Your task to perform on an android device: read, delete, or share a saved page in the chrome app Image 0: 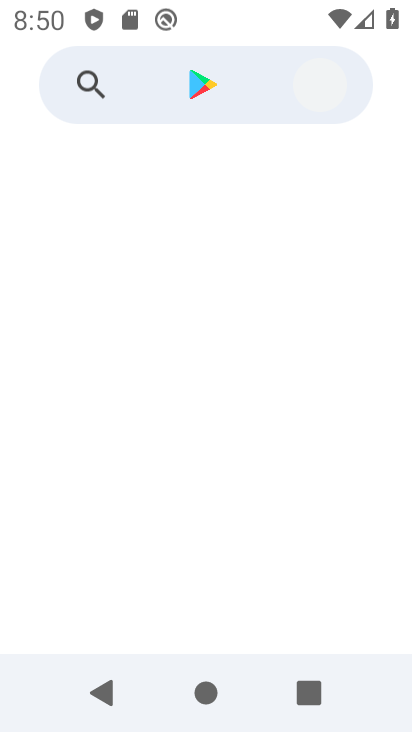
Step 0: press home button
Your task to perform on an android device: read, delete, or share a saved page in the chrome app Image 1: 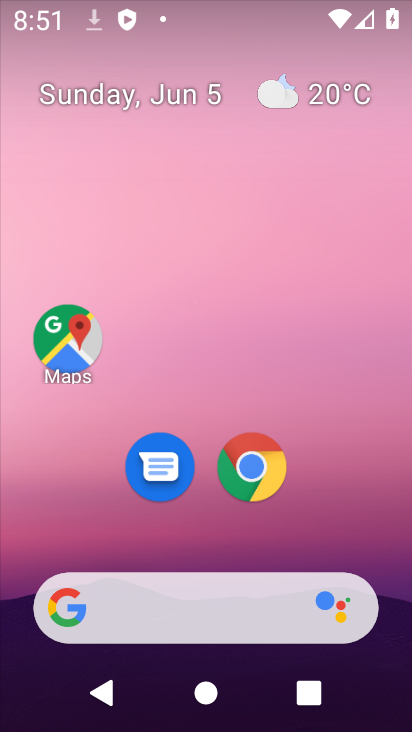
Step 1: click (256, 446)
Your task to perform on an android device: read, delete, or share a saved page in the chrome app Image 2: 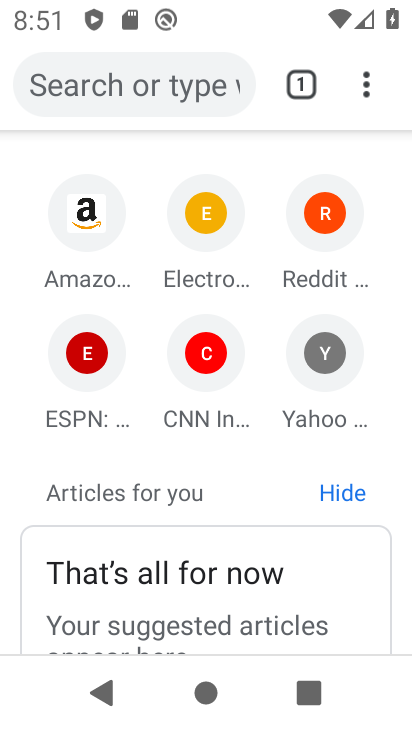
Step 2: click (361, 73)
Your task to perform on an android device: read, delete, or share a saved page in the chrome app Image 3: 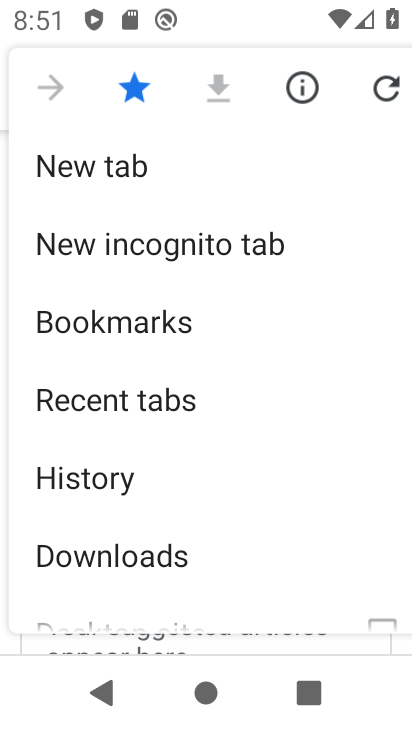
Step 3: click (107, 553)
Your task to perform on an android device: read, delete, or share a saved page in the chrome app Image 4: 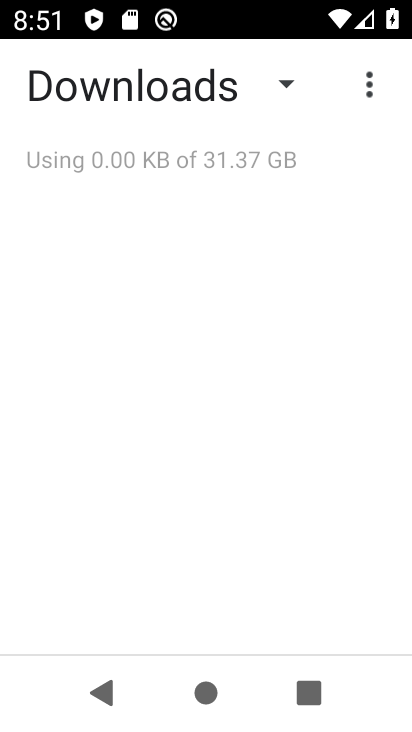
Step 4: click (122, 97)
Your task to perform on an android device: read, delete, or share a saved page in the chrome app Image 5: 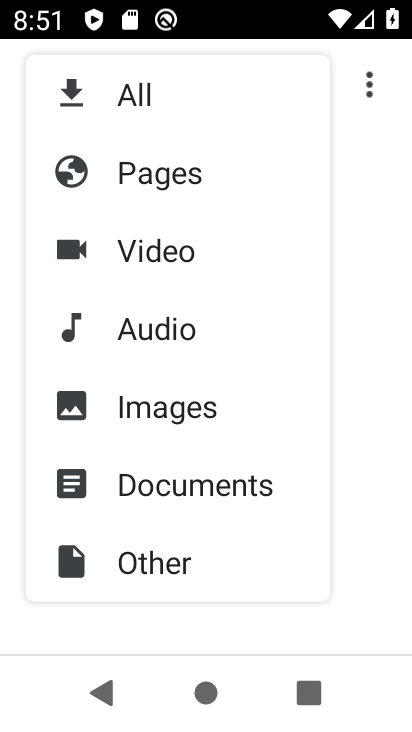
Step 5: click (214, 188)
Your task to perform on an android device: read, delete, or share a saved page in the chrome app Image 6: 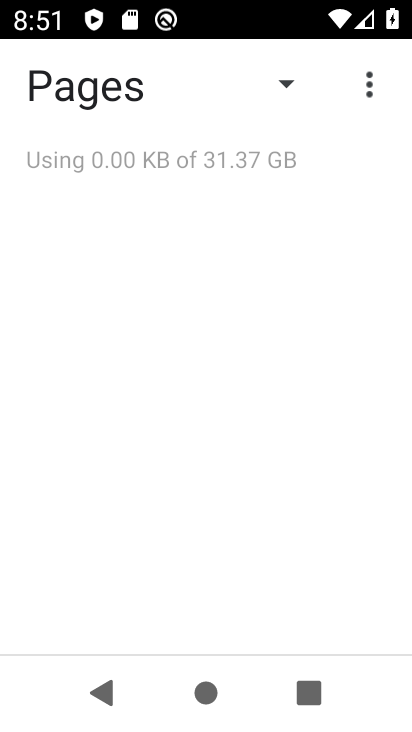
Step 6: task complete